Your task to perform on an android device: Install the Facebook app Image 0: 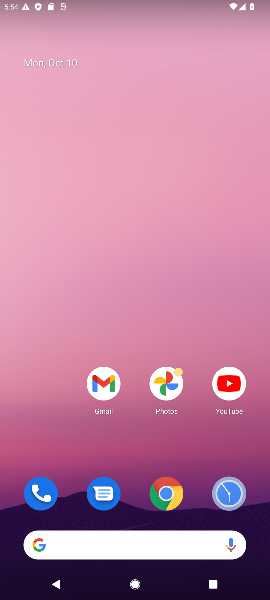
Step 0: drag from (136, 498) to (141, 342)
Your task to perform on an android device: Install the Facebook app Image 1: 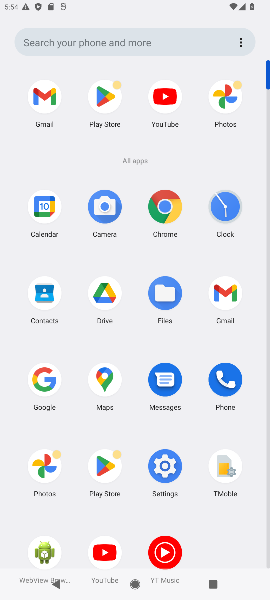
Step 1: click (105, 89)
Your task to perform on an android device: Install the Facebook app Image 2: 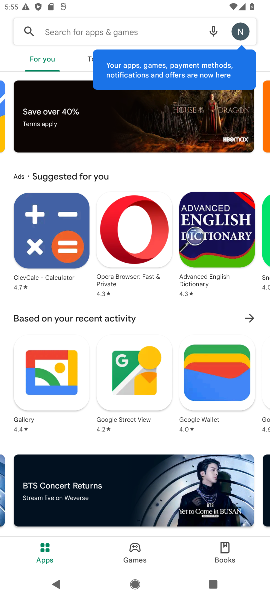
Step 2: click (104, 86)
Your task to perform on an android device: Install the Facebook app Image 3: 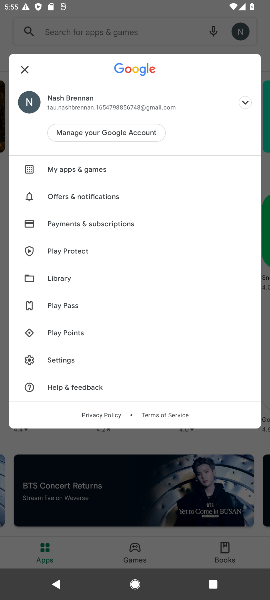
Step 3: click (139, 34)
Your task to perform on an android device: Install the Facebook app Image 4: 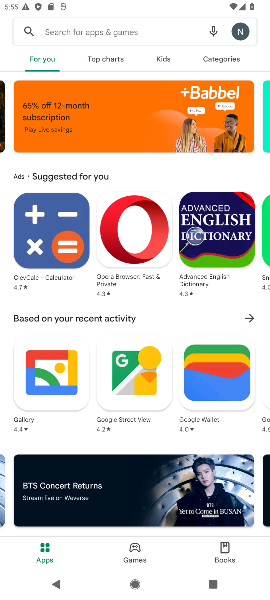
Step 4: click (121, 22)
Your task to perform on an android device: Install the Facebook app Image 5: 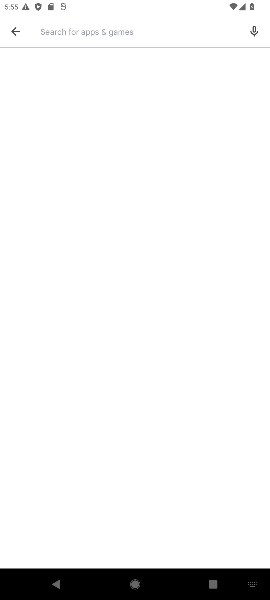
Step 5: press back button
Your task to perform on an android device: Install the Facebook app Image 6: 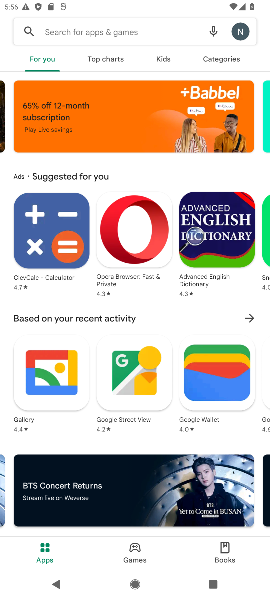
Step 6: click (113, 33)
Your task to perform on an android device: Install the Facebook app Image 7: 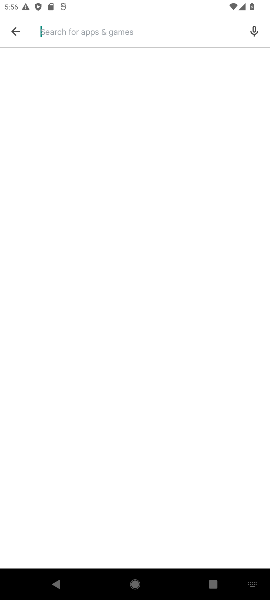
Step 7: type "Facebook"
Your task to perform on an android device: Install the Facebook app Image 8: 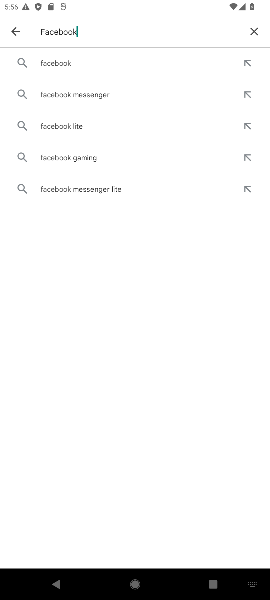
Step 8: click (64, 63)
Your task to perform on an android device: Install the Facebook app Image 9: 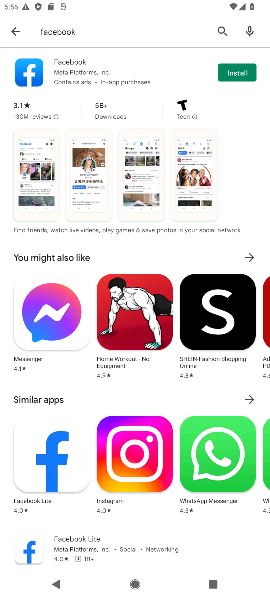
Step 9: click (228, 70)
Your task to perform on an android device: Install the Facebook app Image 10: 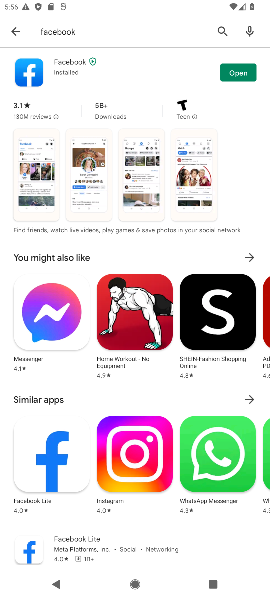
Step 10: click (229, 75)
Your task to perform on an android device: Install the Facebook app Image 11: 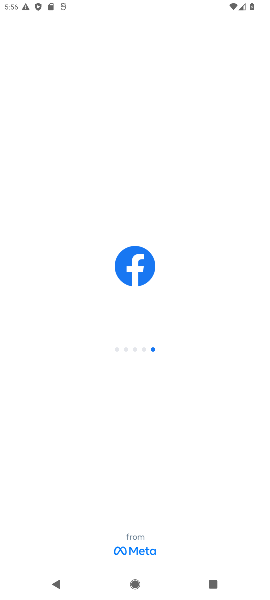
Step 11: task complete